Your task to perform on an android device: Go to calendar. Show me events next week Image 0: 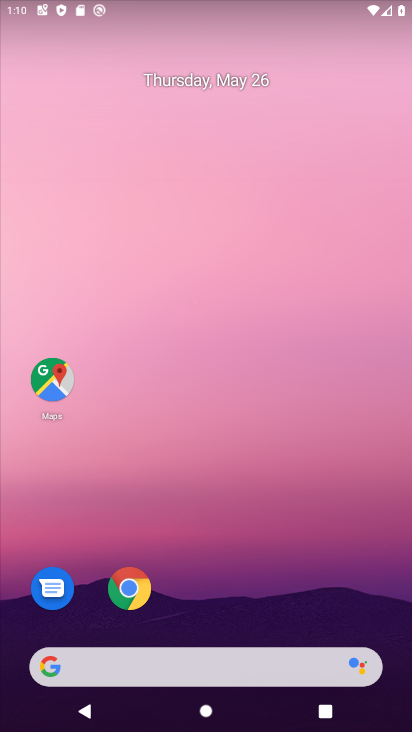
Step 0: drag from (401, 704) to (334, 181)
Your task to perform on an android device: Go to calendar. Show me events next week Image 1: 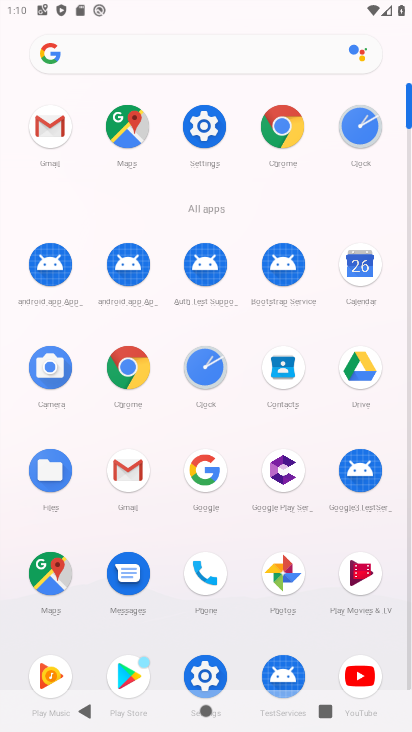
Step 1: click (349, 265)
Your task to perform on an android device: Go to calendar. Show me events next week Image 2: 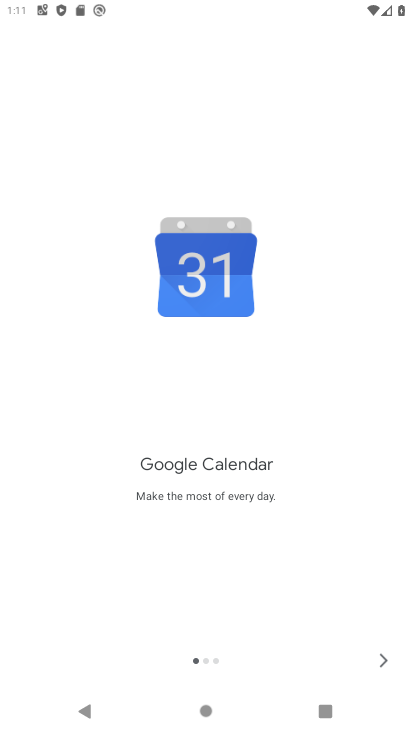
Step 2: click (385, 654)
Your task to perform on an android device: Go to calendar. Show me events next week Image 3: 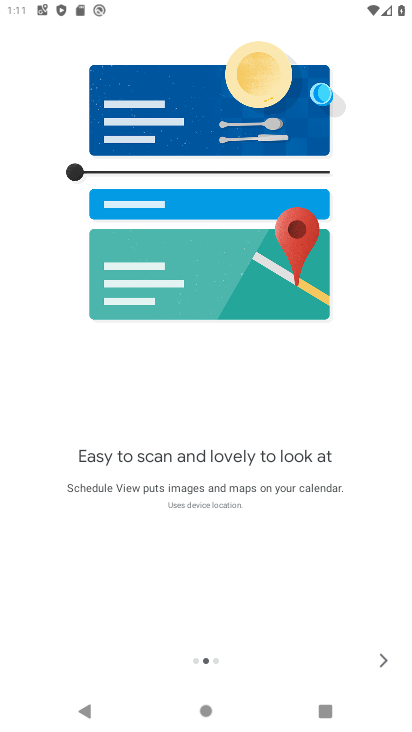
Step 3: click (385, 654)
Your task to perform on an android device: Go to calendar. Show me events next week Image 4: 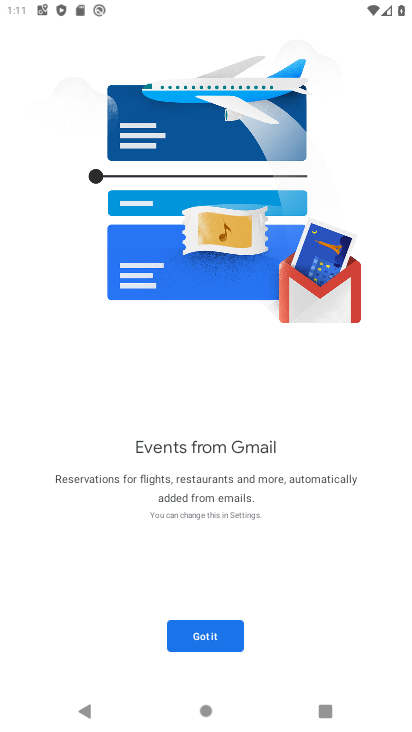
Step 4: click (205, 641)
Your task to perform on an android device: Go to calendar. Show me events next week Image 5: 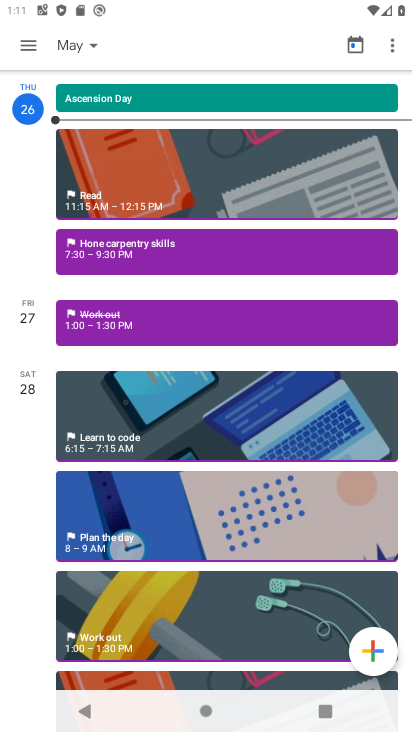
Step 5: click (92, 47)
Your task to perform on an android device: Go to calendar. Show me events next week Image 6: 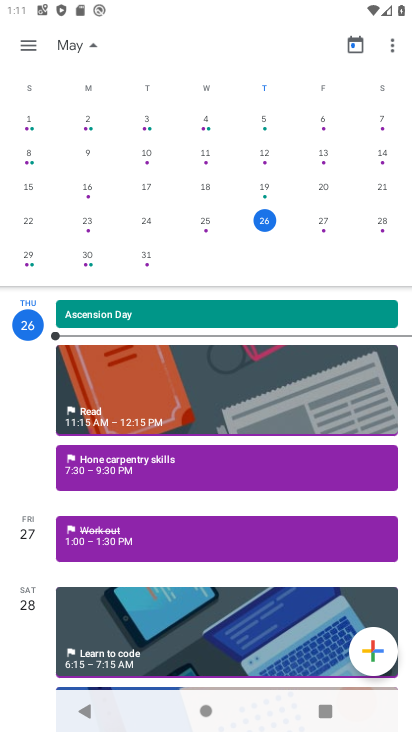
Step 6: click (87, 250)
Your task to perform on an android device: Go to calendar. Show me events next week Image 7: 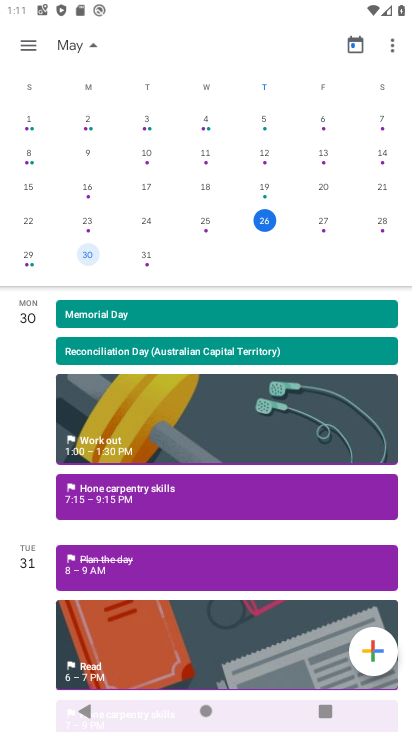
Step 7: task complete